Your task to perform on an android device: Show me productivity apps on the Play Store Image 0: 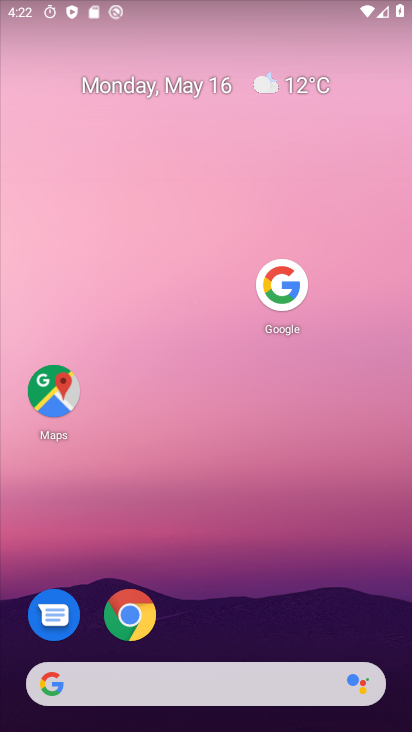
Step 0: drag from (186, 660) to (359, 67)
Your task to perform on an android device: Show me productivity apps on the Play Store Image 1: 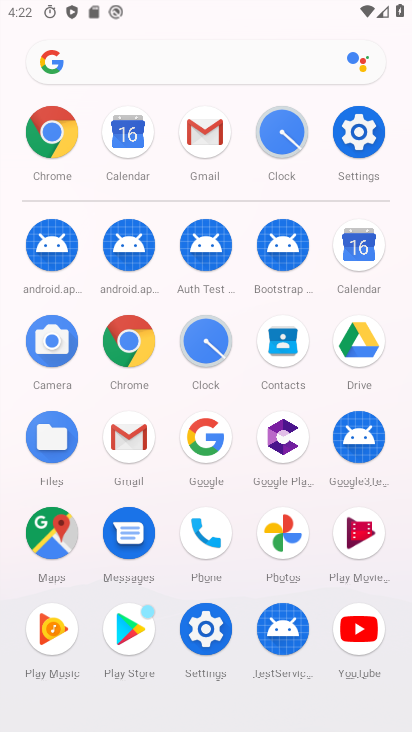
Step 1: click (131, 637)
Your task to perform on an android device: Show me productivity apps on the Play Store Image 2: 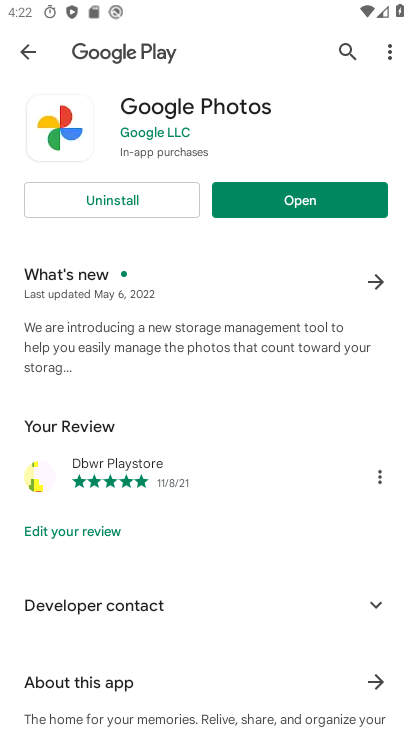
Step 2: click (38, 53)
Your task to perform on an android device: Show me productivity apps on the Play Store Image 3: 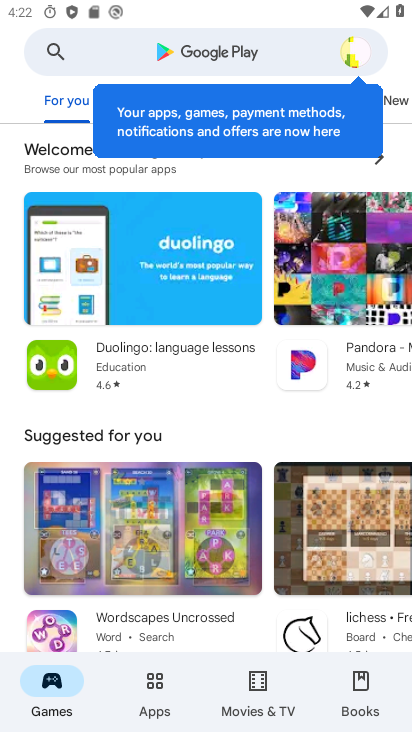
Step 3: click (156, 687)
Your task to perform on an android device: Show me productivity apps on the Play Store Image 4: 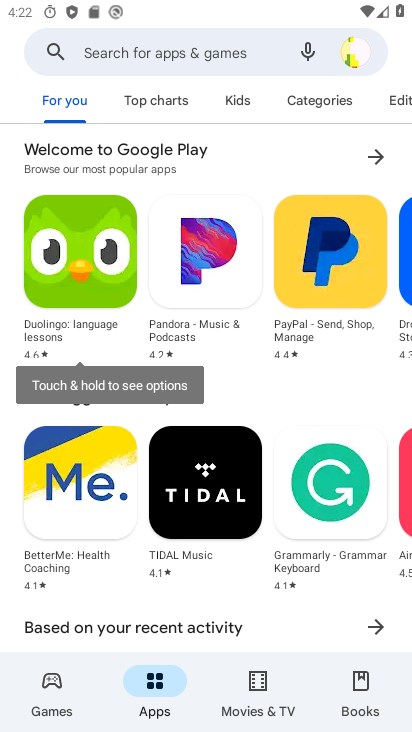
Step 4: click (319, 99)
Your task to perform on an android device: Show me productivity apps on the Play Store Image 5: 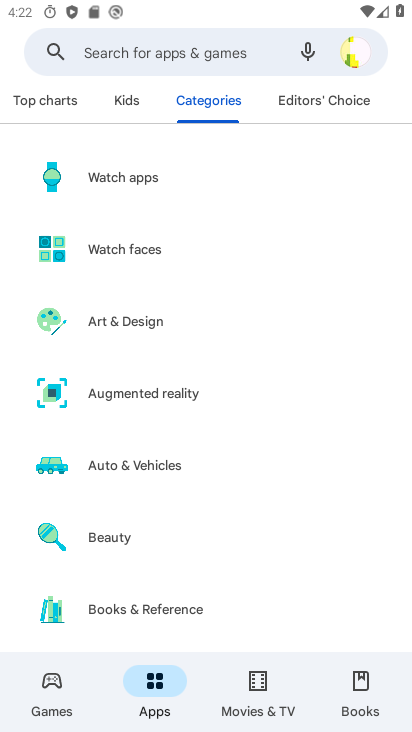
Step 5: drag from (180, 597) to (96, 101)
Your task to perform on an android device: Show me productivity apps on the Play Store Image 6: 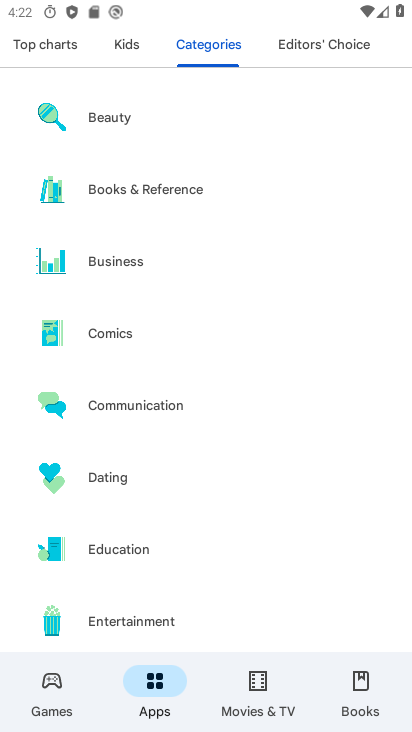
Step 6: drag from (157, 585) to (88, 74)
Your task to perform on an android device: Show me productivity apps on the Play Store Image 7: 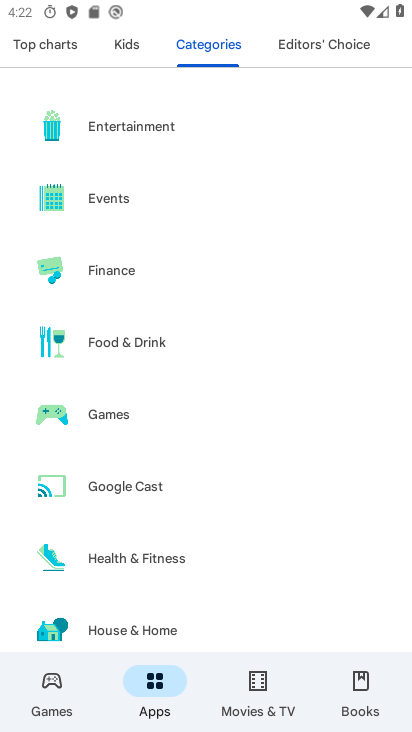
Step 7: drag from (150, 500) to (89, 78)
Your task to perform on an android device: Show me productivity apps on the Play Store Image 8: 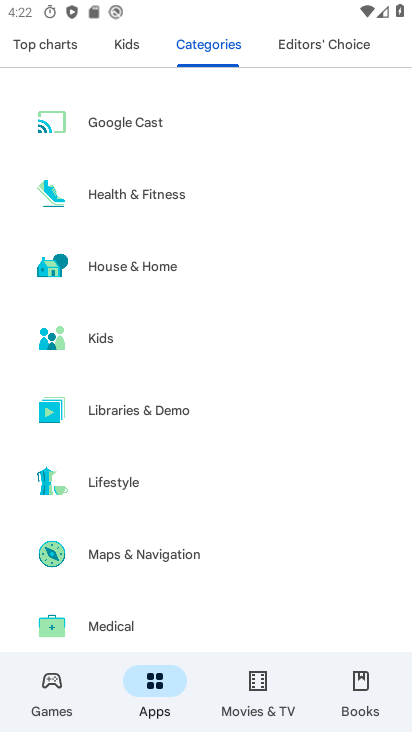
Step 8: drag from (128, 622) to (62, 15)
Your task to perform on an android device: Show me productivity apps on the Play Store Image 9: 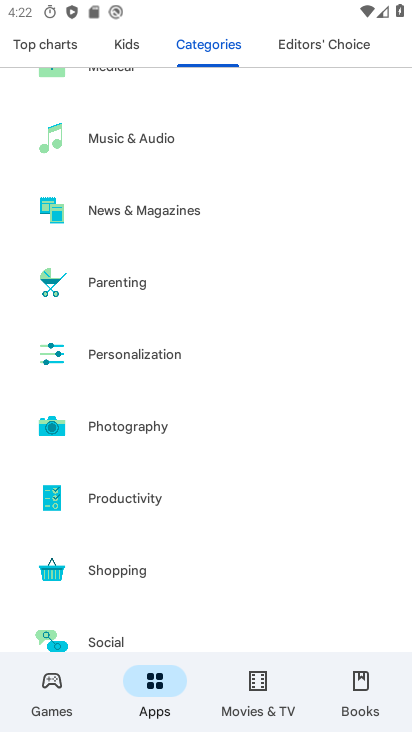
Step 9: click (135, 521)
Your task to perform on an android device: Show me productivity apps on the Play Store Image 10: 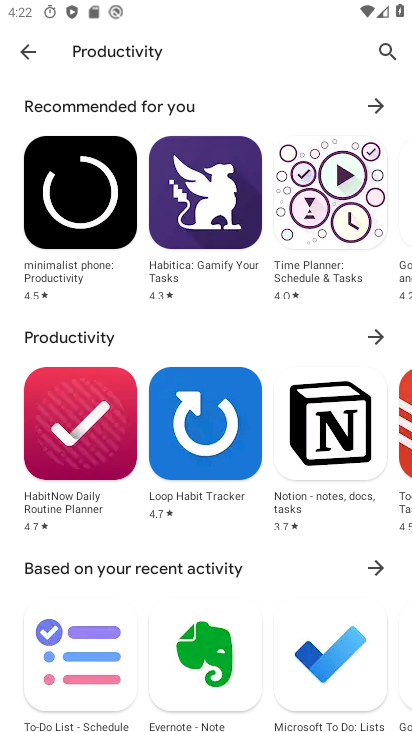
Step 10: task complete